Your task to perform on an android device: View the shopping cart on bestbuy. Search for logitech g903 on bestbuy, select the first entry, and add it to the cart. Image 0: 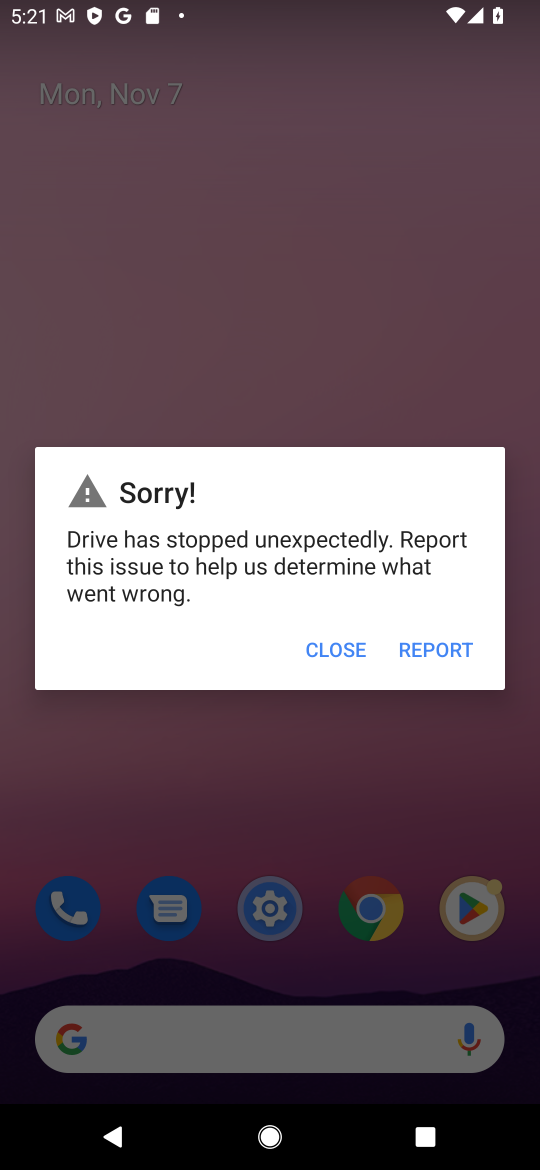
Step 0: task complete